Your task to perform on an android device: Go to battery settings Image 0: 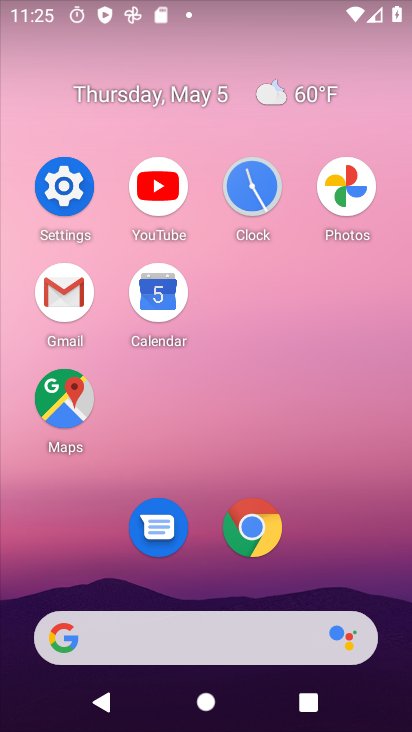
Step 0: click (62, 184)
Your task to perform on an android device: Go to battery settings Image 1: 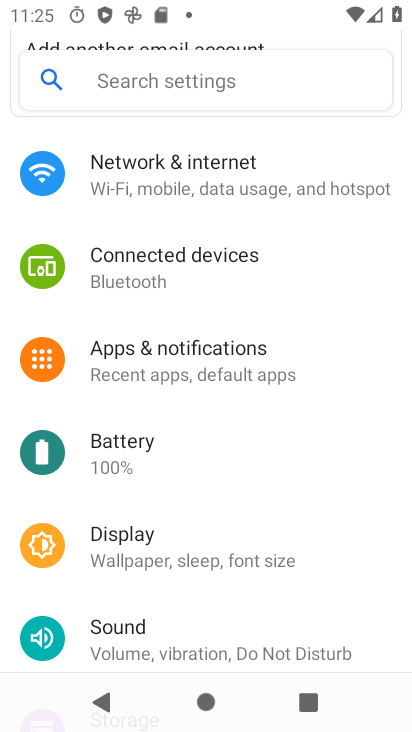
Step 1: drag from (239, 487) to (284, 158)
Your task to perform on an android device: Go to battery settings Image 2: 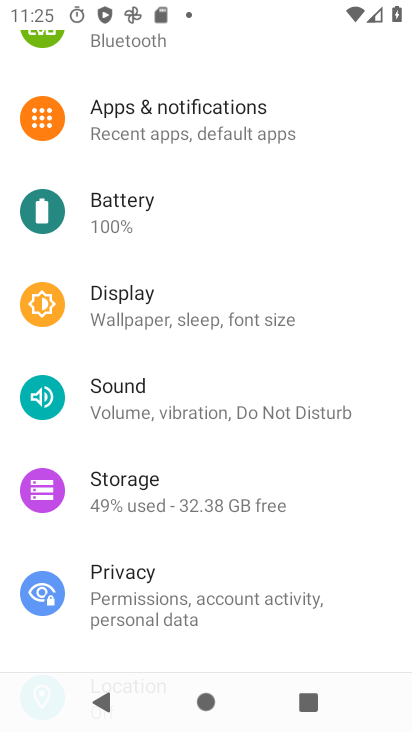
Step 2: drag from (209, 483) to (250, 159)
Your task to perform on an android device: Go to battery settings Image 3: 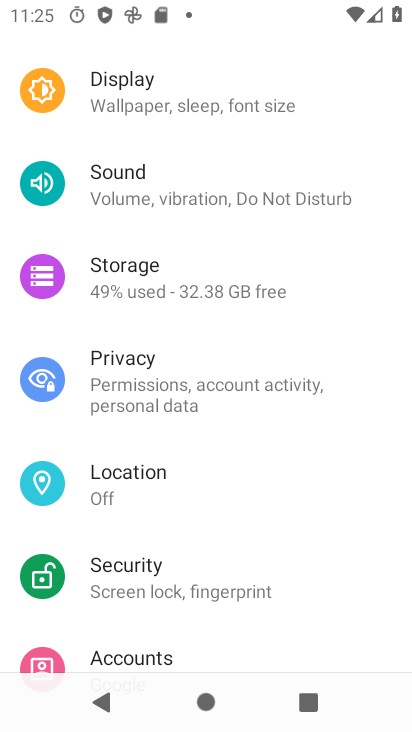
Step 3: drag from (262, 286) to (233, 569)
Your task to perform on an android device: Go to battery settings Image 4: 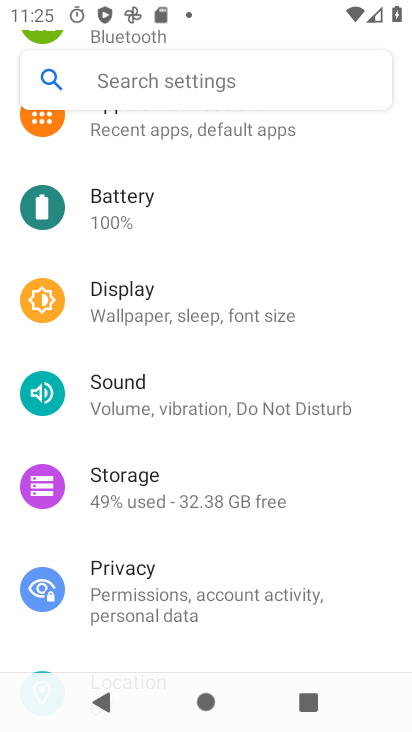
Step 4: click (136, 203)
Your task to perform on an android device: Go to battery settings Image 5: 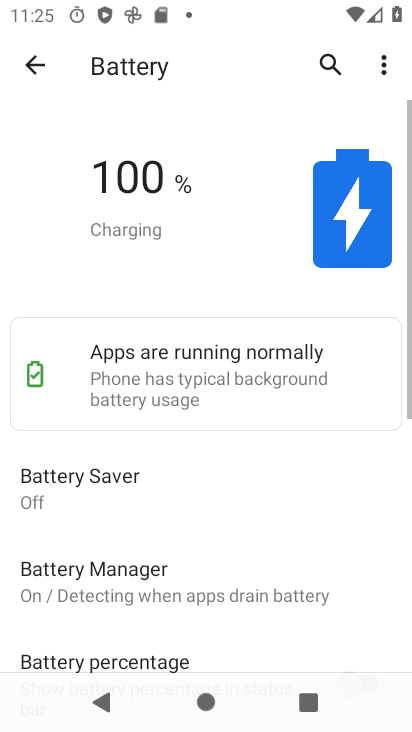
Step 5: click (391, 69)
Your task to perform on an android device: Go to battery settings Image 6: 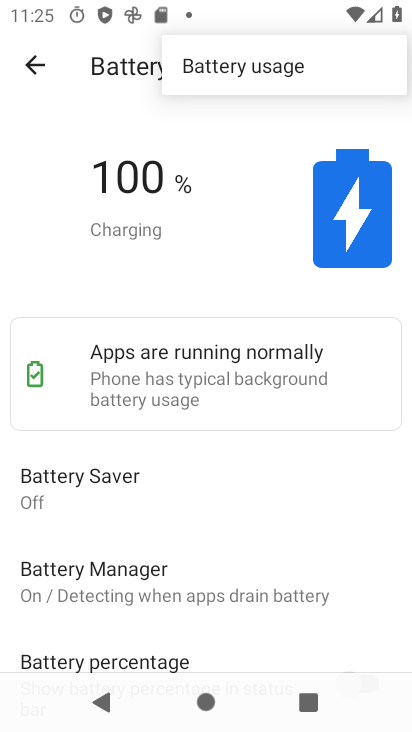
Step 6: task complete